Your task to perform on an android device: Go to Yahoo.com Image 0: 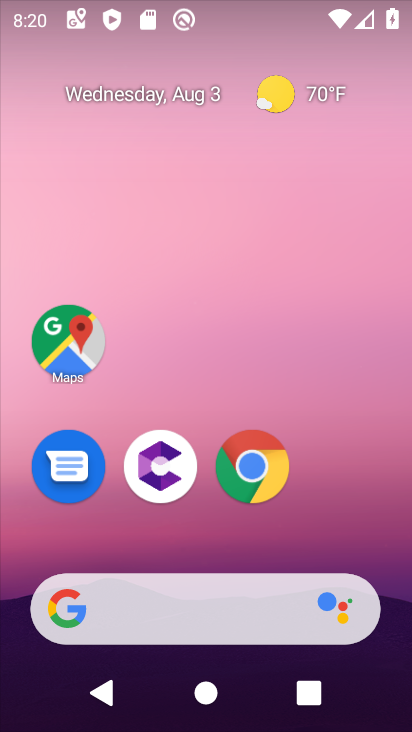
Step 0: drag from (351, 504) to (364, 86)
Your task to perform on an android device: Go to Yahoo.com Image 1: 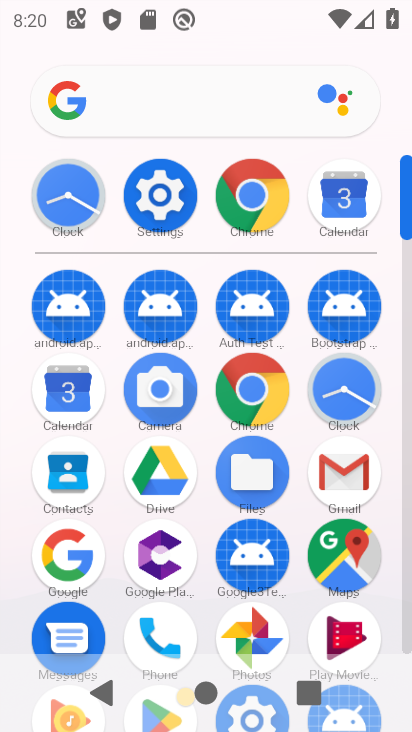
Step 1: click (264, 389)
Your task to perform on an android device: Go to Yahoo.com Image 2: 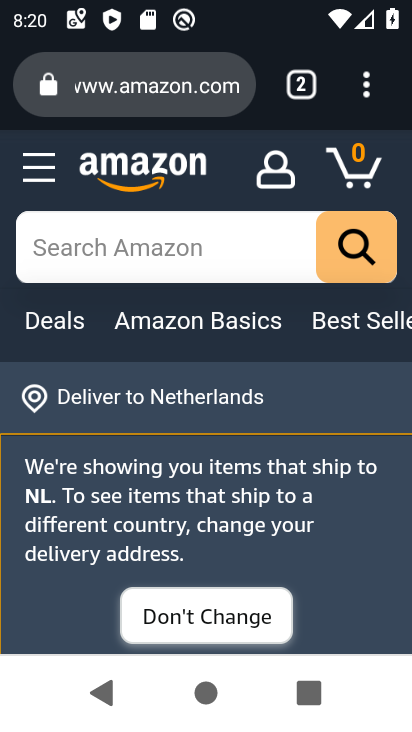
Step 2: click (192, 77)
Your task to perform on an android device: Go to Yahoo.com Image 3: 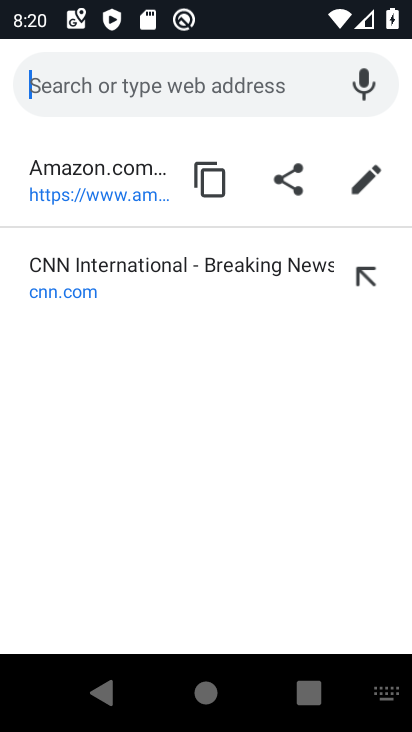
Step 3: type "yahoo.com"
Your task to perform on an android device: Go to Yahoo.com Image 4: 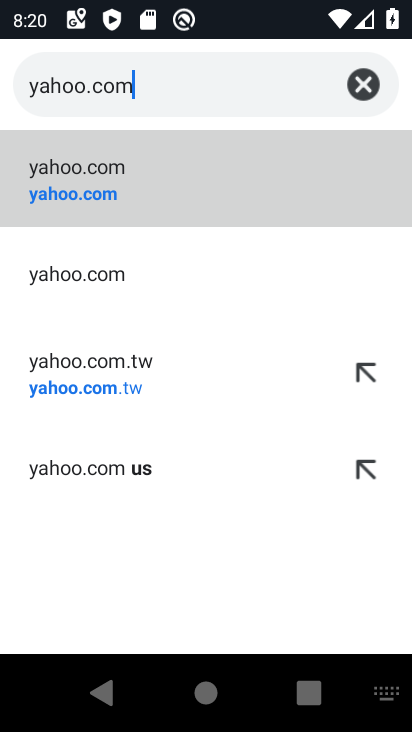
Step 4: click (79, 181)
Your task to perform on an android device: Go to Yahoo.com Image 5: 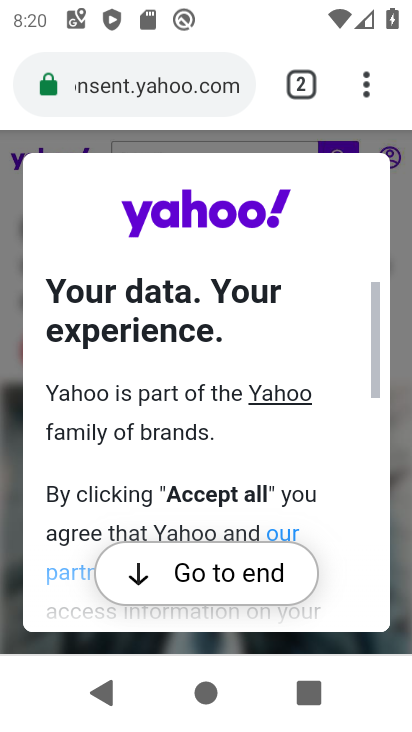
Step 5: task complete